Your task to perform on an android device: Go to calendar. Show me events next week Image 0: 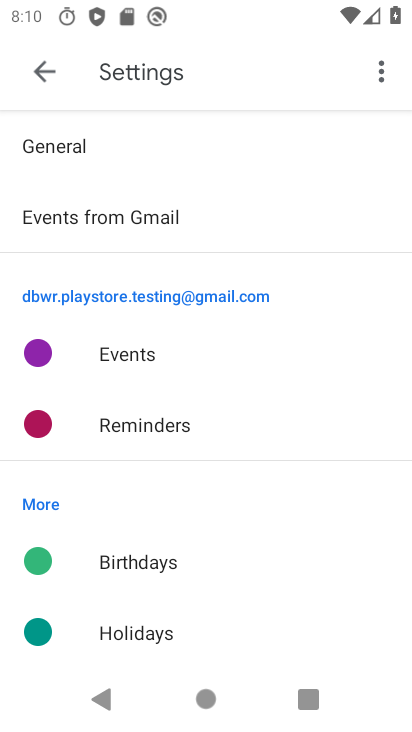
Step 0: press home button
Your task to perform on an android device: Go to calendar. Show me events next week Image 1: 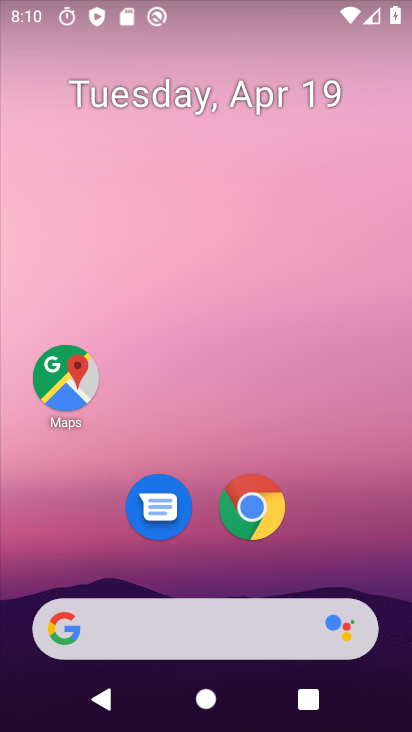
Step 1: drag from (336, 530) to (280, 90)
Your task to perform on an android device: Go to calendar. Show me events next week Image 2: 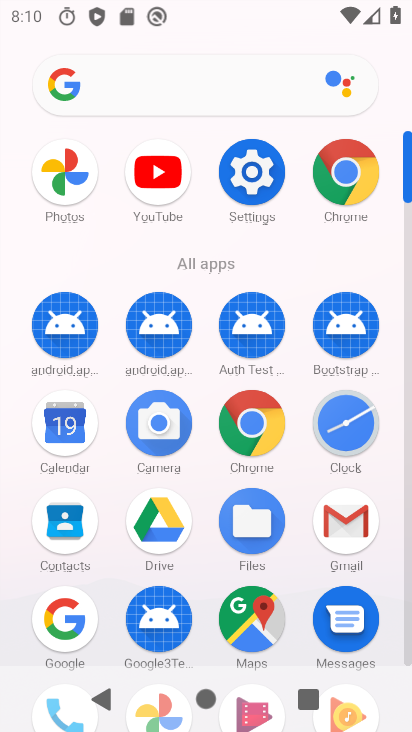
Step 2: click (68, 425)
Your task to perform on an android device: Go to calendar. Show me events next week Image 3: 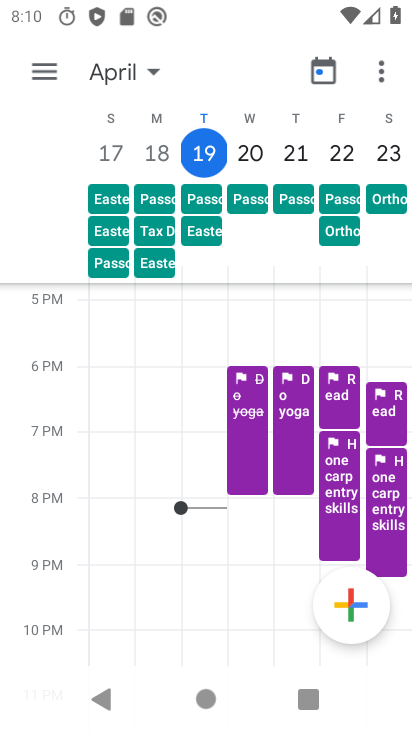
Step 3: drag from (398, 153) to (34, 163)
Your task to perform on an android device: Go to calendar. Show me events next week Image 4: 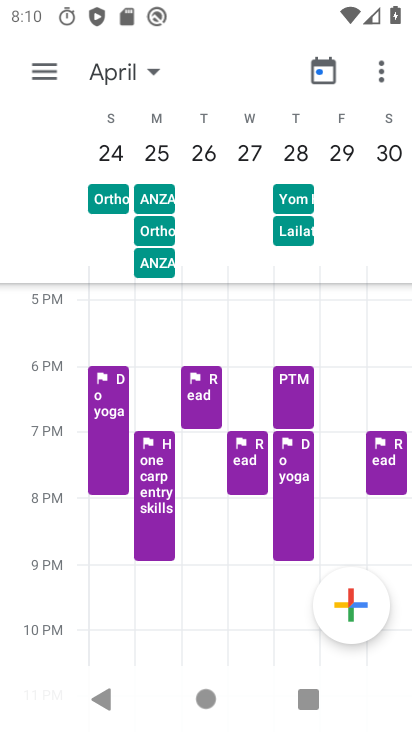
Step 4: click (44, 74)
Your task to perform on an android device: Go to calendar. Show me events next week Image 5: 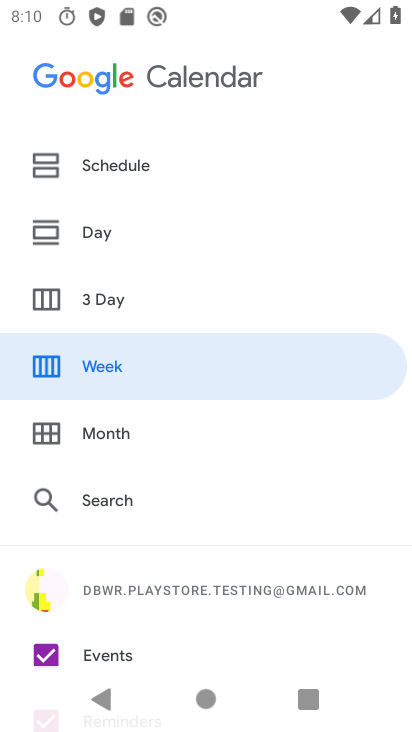
Step 5: drag from (142, 610) to (134, 199)
Your task to perform on an android device: Go to calendar. Show me events next week Image 6: 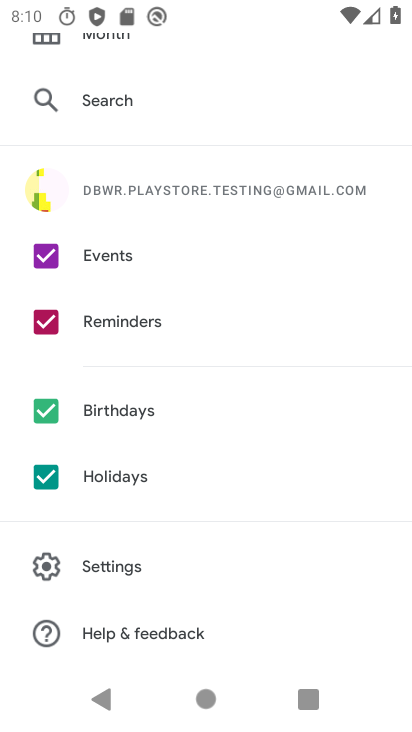
Step 6: click (49, 471)
Your task to perform on an android device: Go to calendar. Show me events next week Image 7: 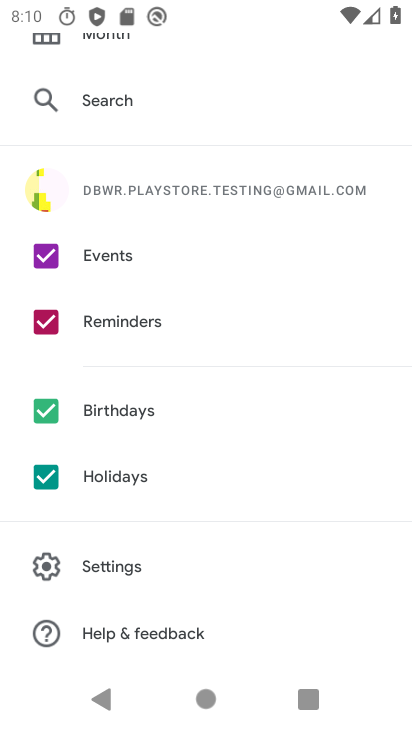
Step 7: click (48, 409)
Your task to perform on an android device: Go to calendar. Show me events next week Image 8: 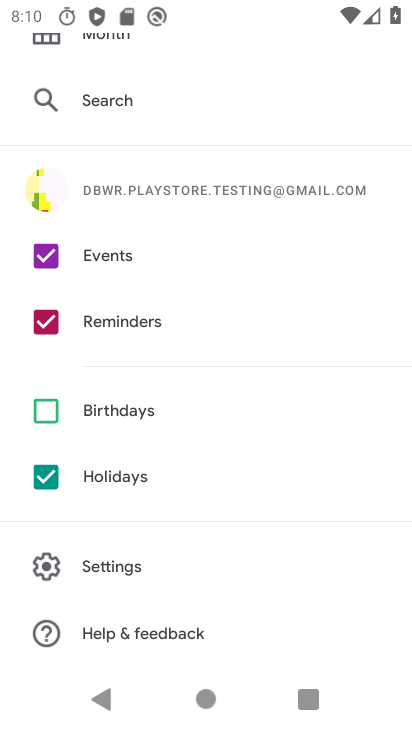
Step 8: click (46, 324)
Your task to perform on an android device: Go to calendar. Show me events next week Image 9: 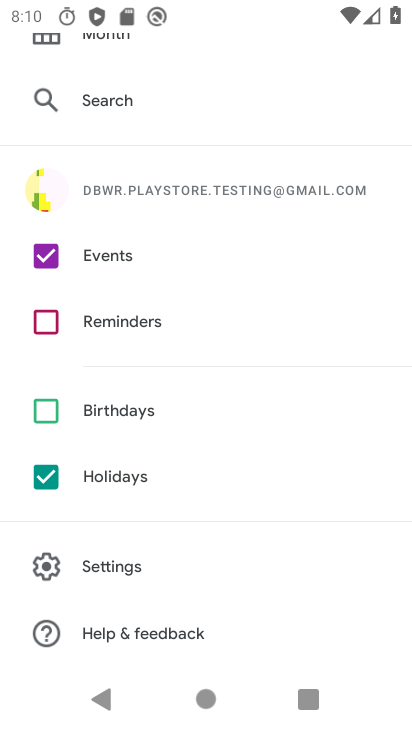
Step 9: click (47, 477)
Your task to perform on an android device: Go to calendar. Show me events next week Image 10: 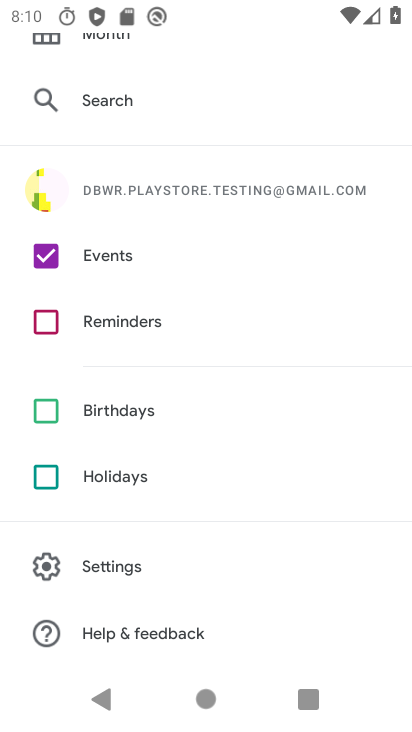
Step 10: task complete